Your task to perform on an android device: turn off javascript in the chrome app Image 0: 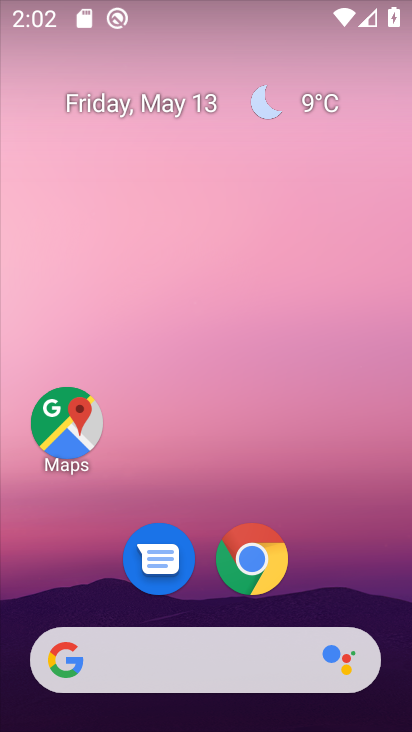
Step 0: click (262, 574)
Your task to perform on an android device: turn off javascript in the chrome app Image 1: 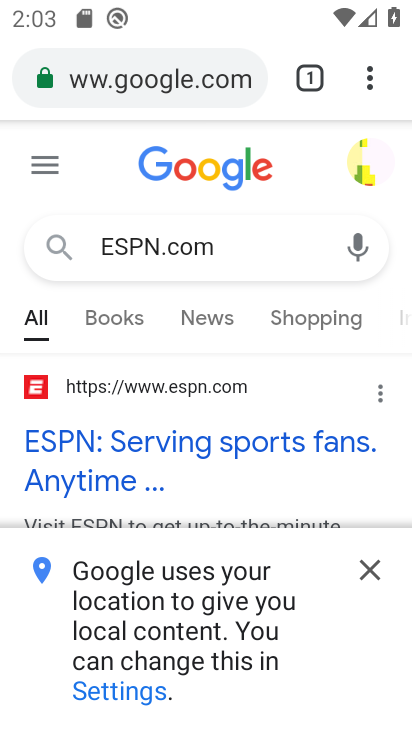
Step 1: click (369, 78)
Your task to perform on an android device: turn off javascript in the chrome app Image 2: 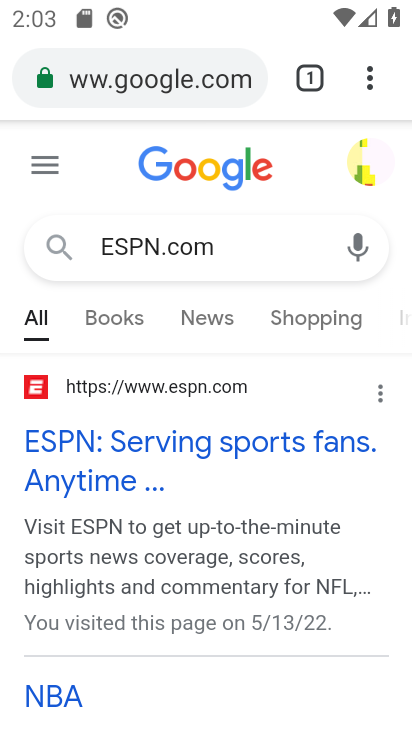
Step 2: click (369, 80)
Your task to perform on an android device: turn off javascript in the chrome app Image 3: 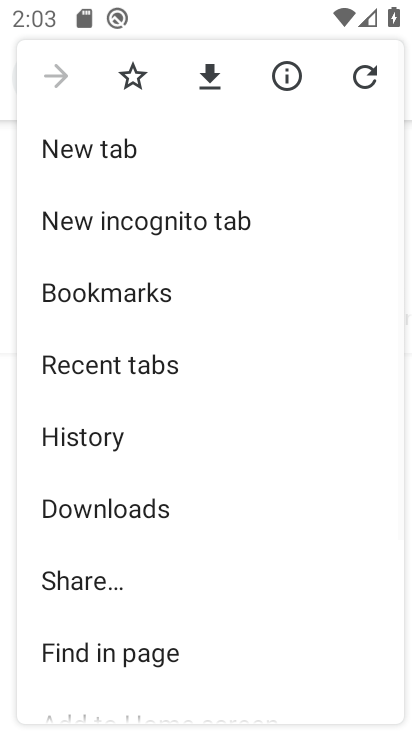
Step 3: drag from (268, 625) to (286, 324)
Your task to perform on an android device: turn off javascript in the chrome app Image 4: 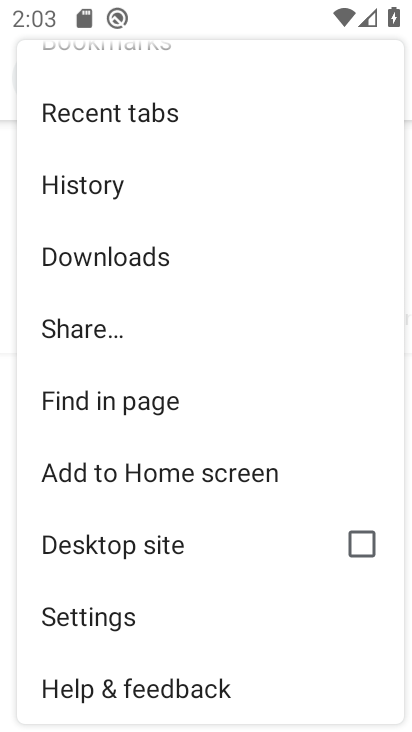
Step 4: click (100, 619)
Your task to perform on an android device: turn off javascript in the chrome app Image 5: 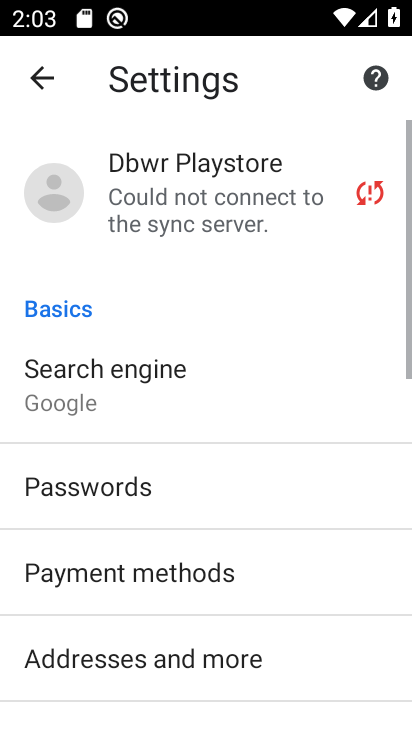
Step 5: drag from (274, 687) to (267, 441)
Your task to perform on an android device: turn off javascript in the chrome app Image 6: 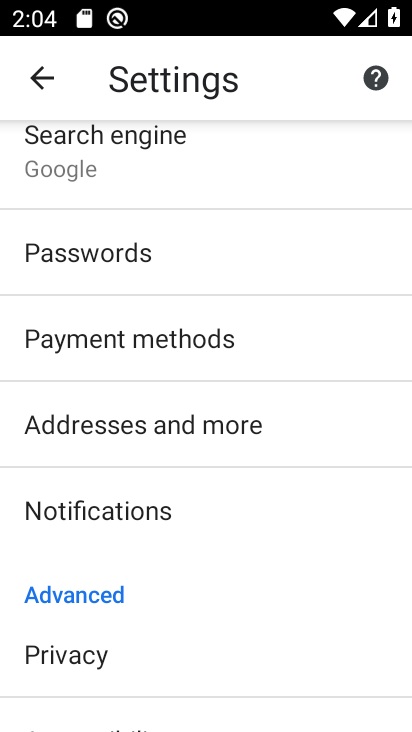
Step 6: drag from (245, 656) to (244, 459)
Your task to perform on an android device: turn off javascript in the chrome app Image 7: 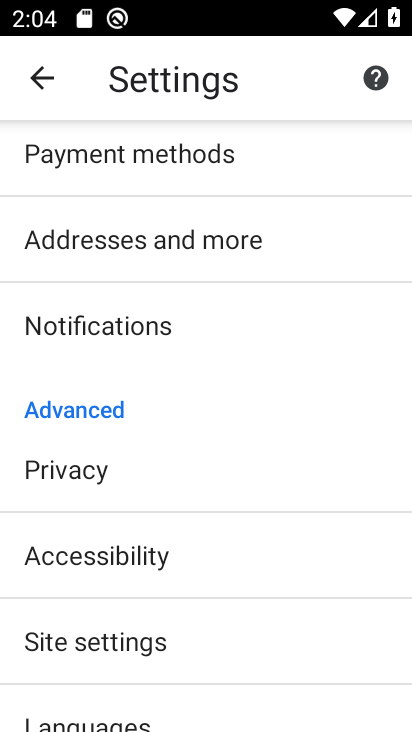
Step 7: click (151, 650)
Your task to perform on an android device: turn off javascript in the chrome app Image 8: 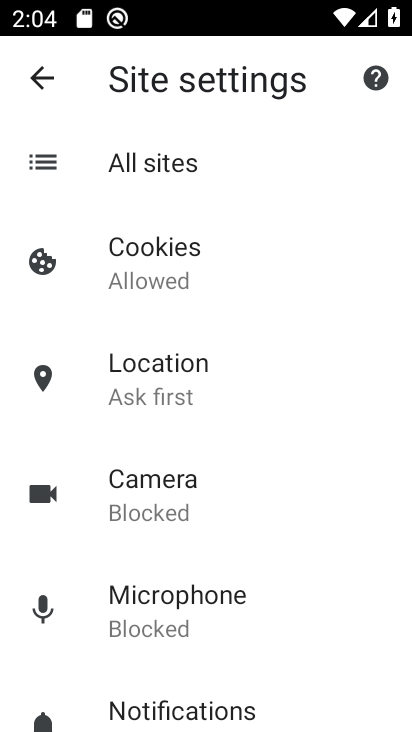
Step 8: drag from (291, 698) to (299, 479)
Your task to perform on an android device: turn off javascript in the chrome app Image 9: 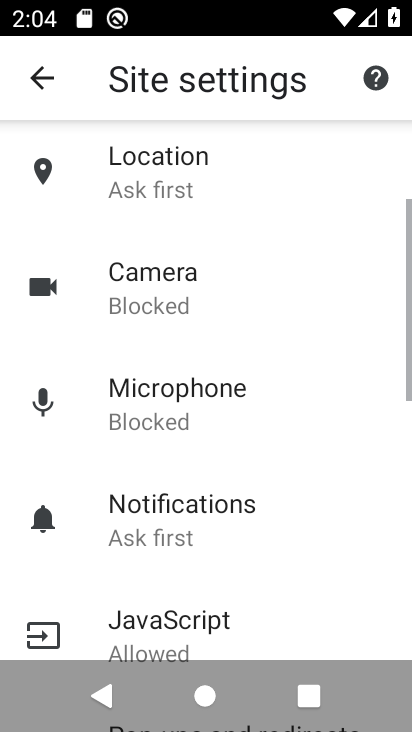
Step 9: click (161, 634)
Your task to perform on an android device: turn off javascript in the chrome app Image 10: 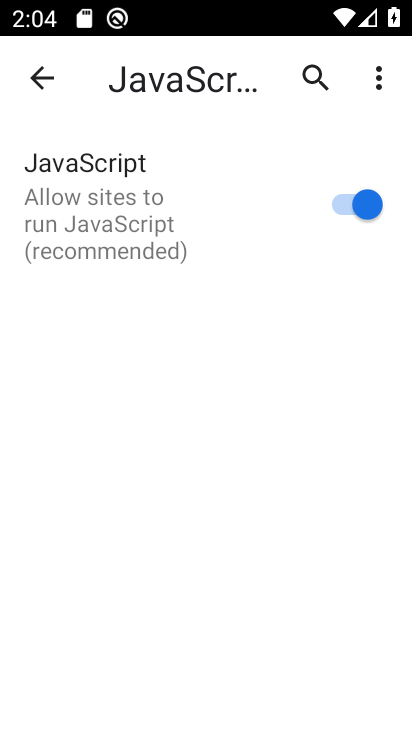
Step 10: click (340, 206)
Your task to perform on an android device: turn off javascript in the chrome app Image 11: 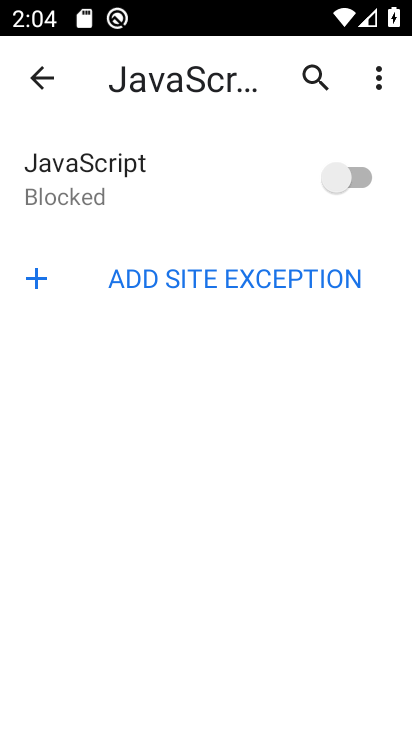
Step 11: task complete